Your task to perform on an android device: set the timer Image 0: 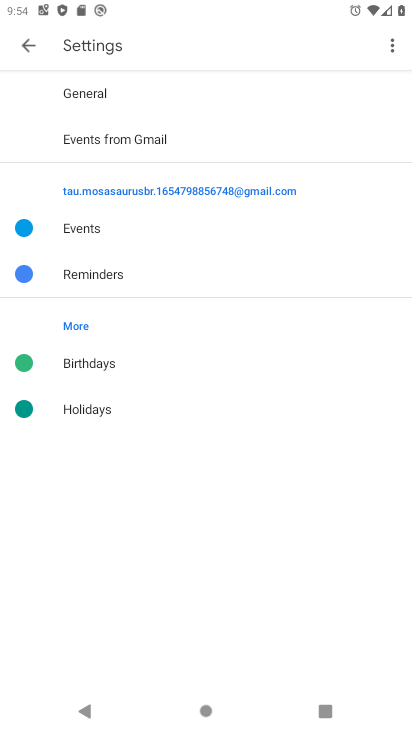
Step 0: press back button
Your task to perform on an android device: set the timer Image 1: 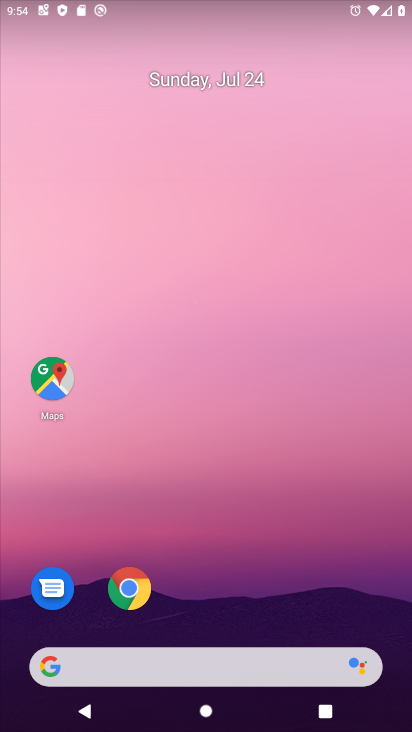
Step 1: drag from (278, 695) to (323, 21)
Your task to perform on an android device: set the timer Image 2: 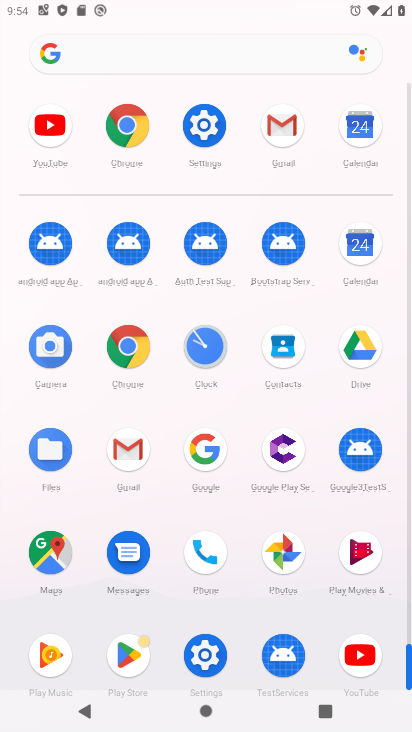
Step 2: click (204, 335)
Your task to perform on an android device: set the timer Image 3: 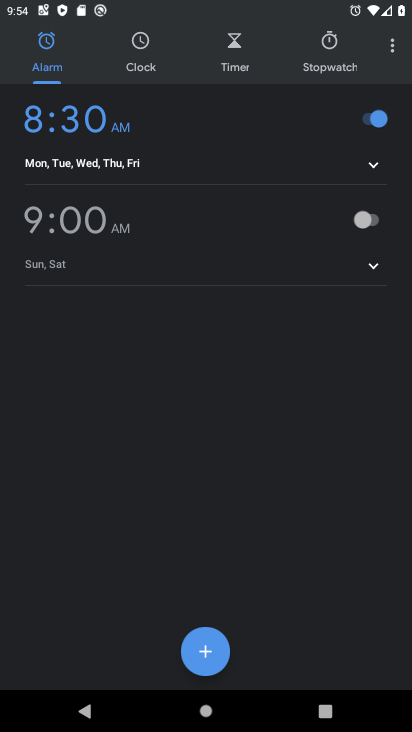
Step 3: click (235, 62)
Your task to perform on an android device: set the timer Image 4: 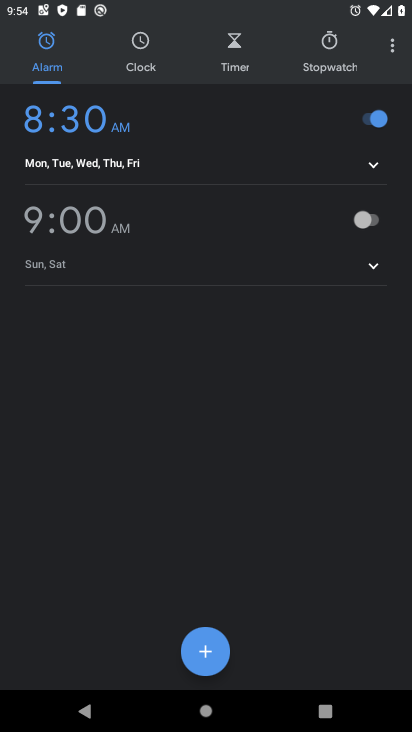
Step 4: click (239, 54)
Your task to perform on an android device: set the timer Image 5: 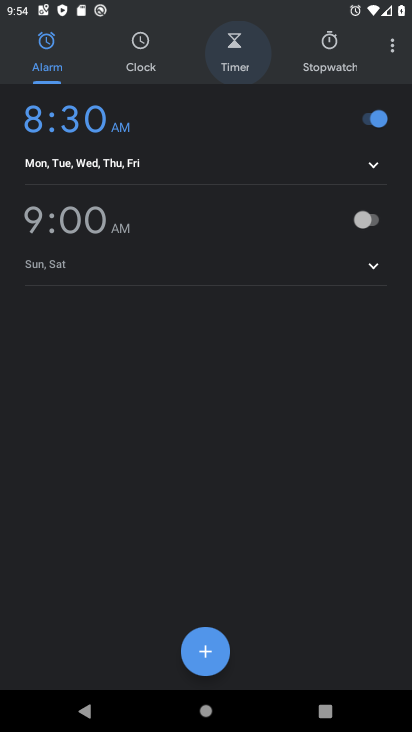
Step 5: click (242, 53)
Your task to perform on an android device: set the timer Image 6: 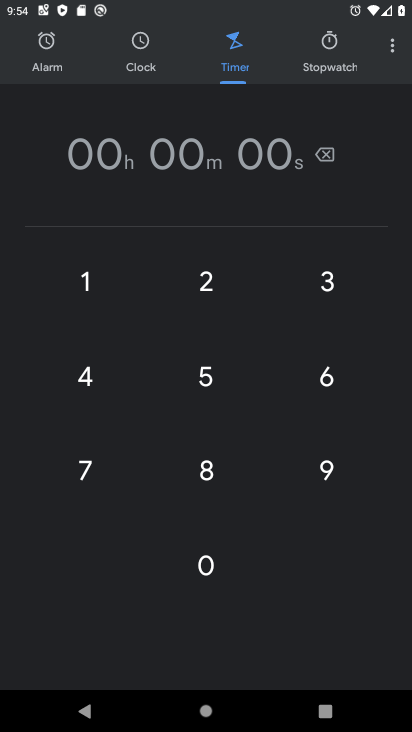
Step 6: click (244, 51)
Your task to perform on an android device: set the timer Image 7: 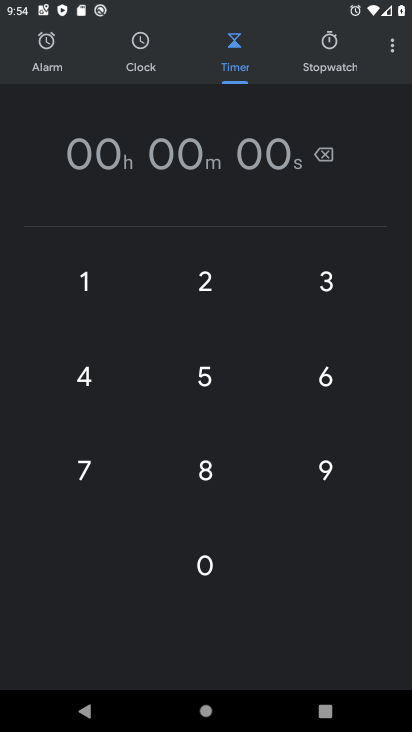
Step 7: click (208, 373)
Your task to perform on an android device: set the timer Image 8: 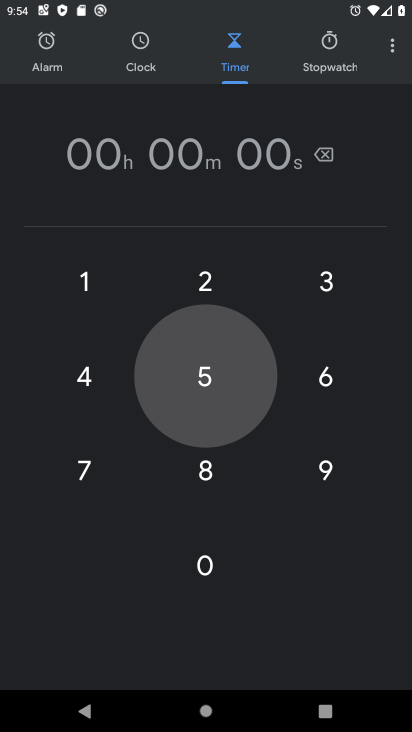
Step 8: click (206, 372)
Your task to perform on an android device: set the timer Image 9: 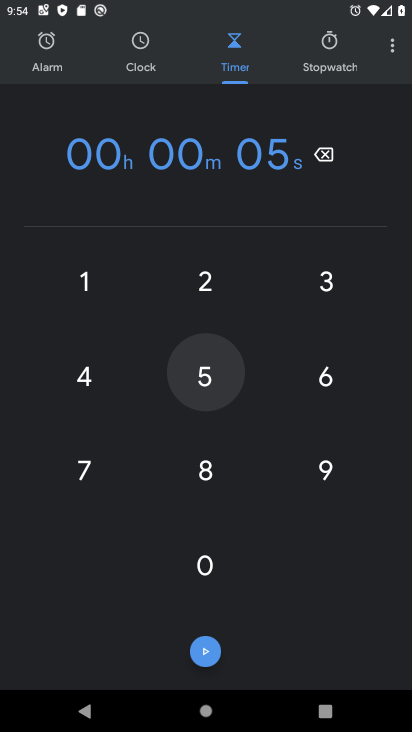
Step 9: click (206, 372)
Your task to perform on an android device: set the timer Image 10: 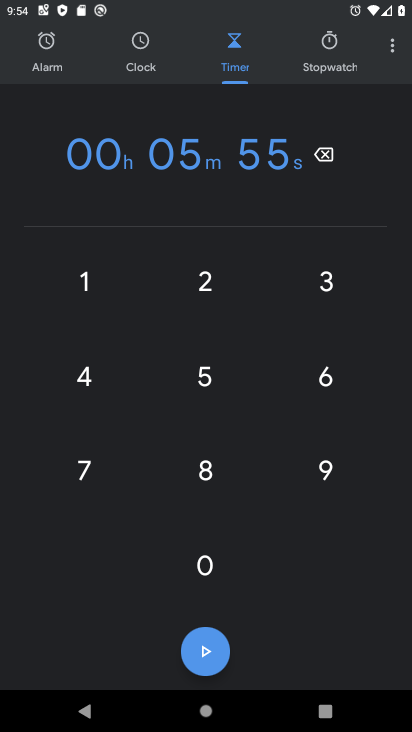
Step 10: click (208, 651)
Your task to perform on an android device: set the timer Image 11: 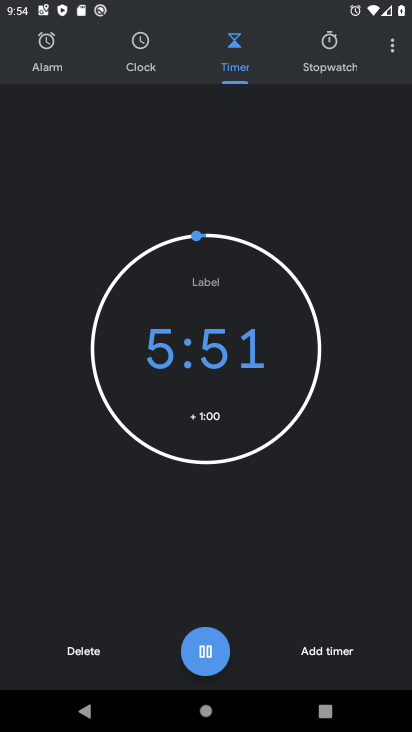
Step 11: click (221, 454)
Your task to perform on an android device: set the timer Image 12: 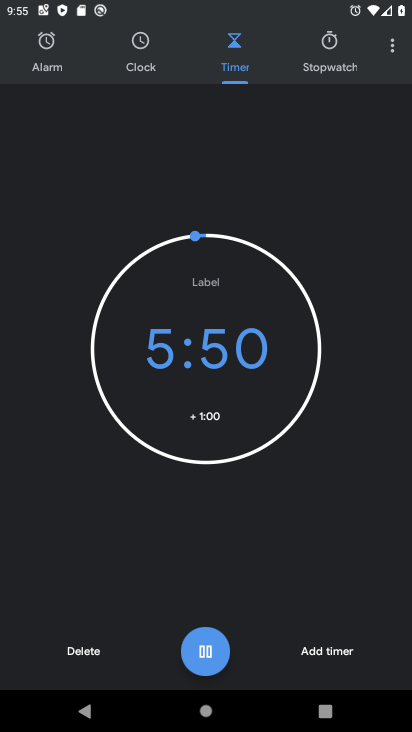
Step 12: click (221, 454)
Your task to perform on an android device: set the timer Image 13: 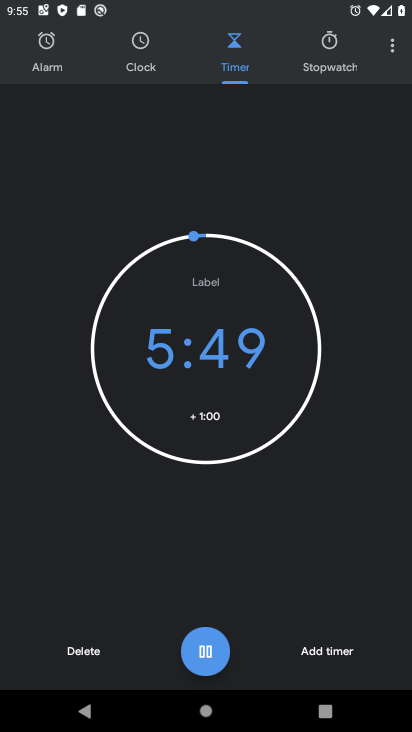
Step 13: click (221, 454)
Your task to perform on an android device: set the timer Image 14: 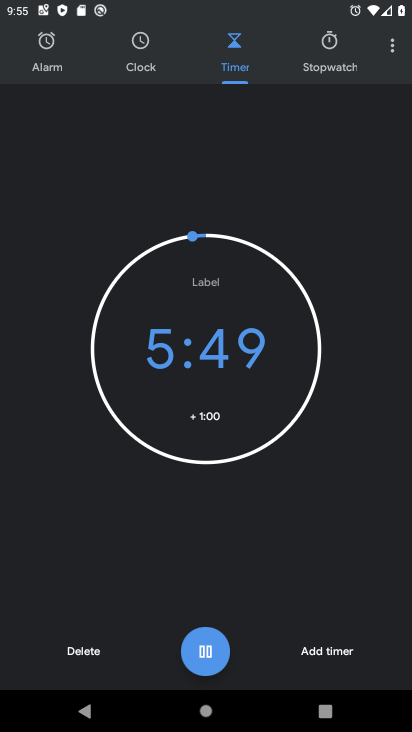
Step 14: click (221, 454)
Your task to perform on an android device: set the timer Image 15: 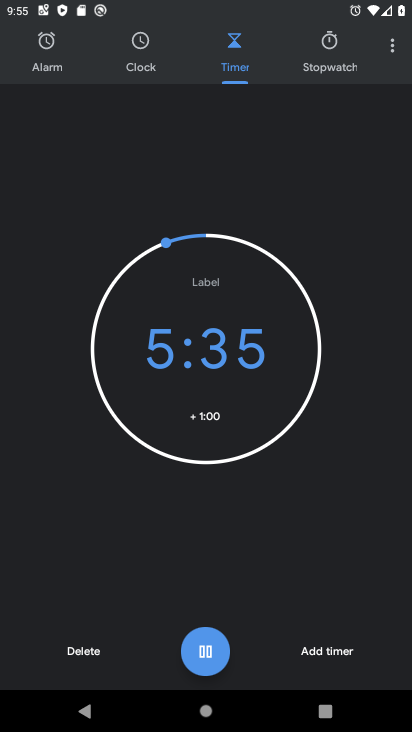
Step 15: click (201, 654)
Your task to perform on an android device: set the timer Image 16: 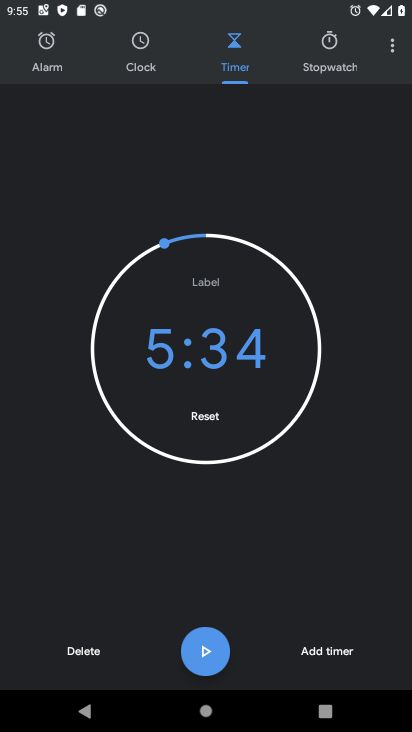
Step 16: task complete